Your task to perform on an android device: Show me popular games on the Play Store Image 0: 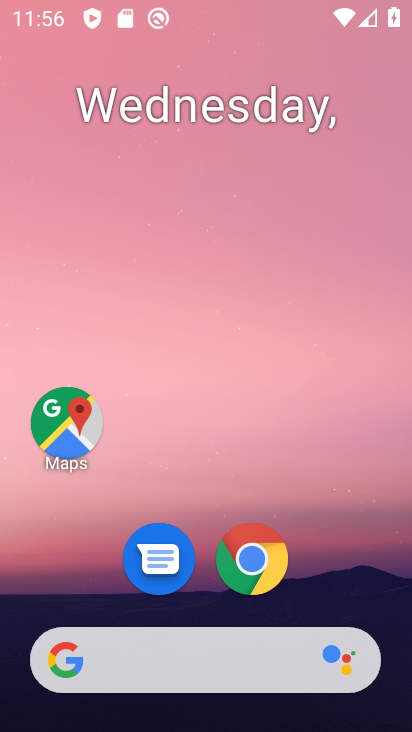
Step 0: click (261, 536)
Your task to perform on an android device: Show me popular games on the Play Store Image 1: 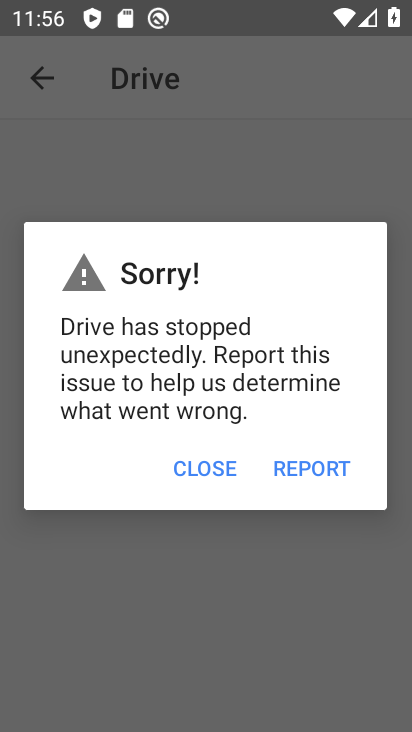
Step 1: click (213, 481)
Your task to perform on an android device: Show me popular games on the Play Store Image 2: 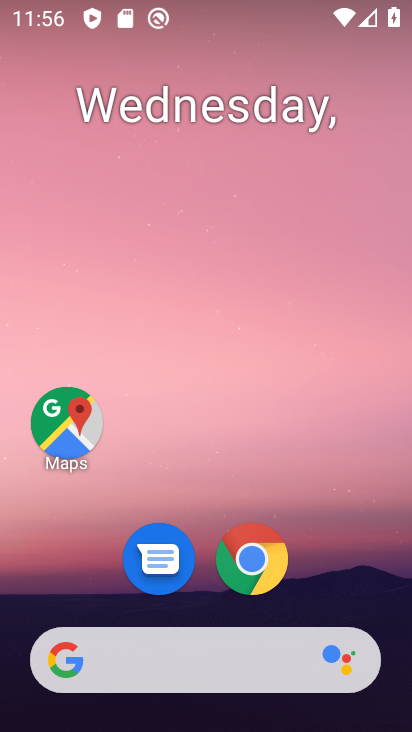
Step 2: drag from (161, 614) to (237, 63)
Your task to perform on an android device: Show me popular games on the Play Store Image 3: 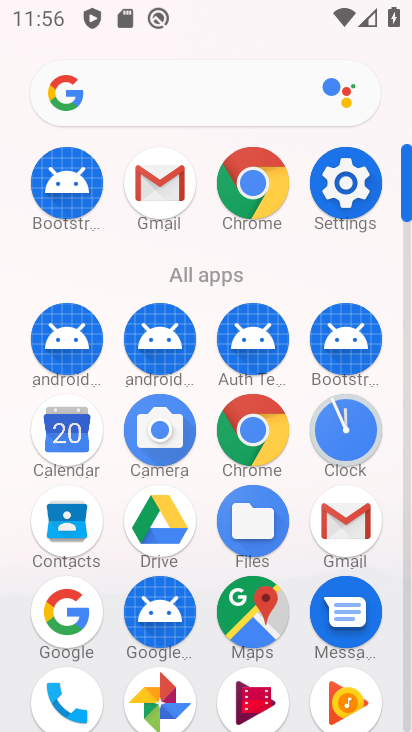
Step 3: drag from (172, 607) to (313, 122)
Your task to perform on an android device: Show me popular games on the Play Store Image 4: 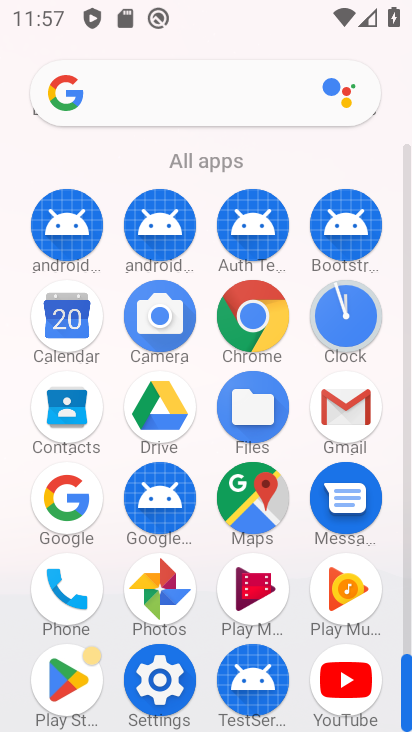
Step 4: click (76, 679)
Your task to perform on an android device: Show me popular games on the Play Store Image 5: 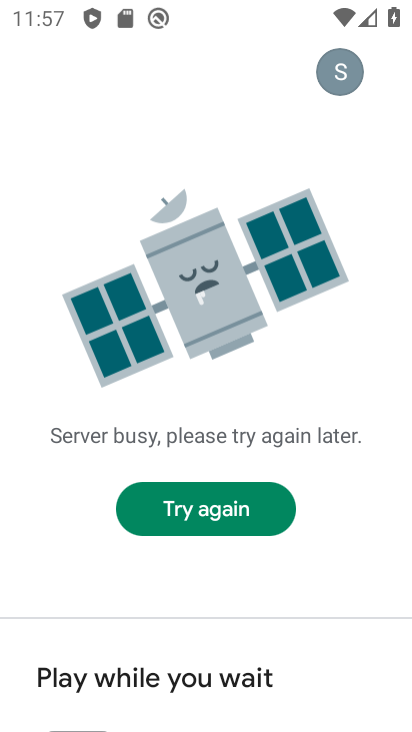
Step 5: task complete